Your task to perform on an android device: uninstall "Chime – Mobile Banking" Image 0: 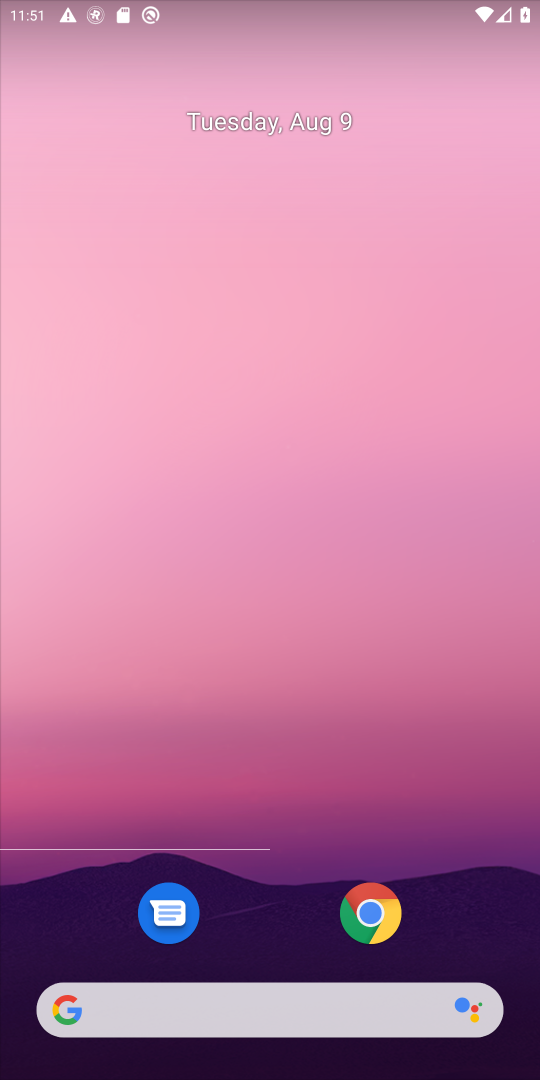
Step 0: drag from (286, 936) to (287, 256)
Your task to perform on an android device: uninstall "Chime – Mobile Banking" Image 1: 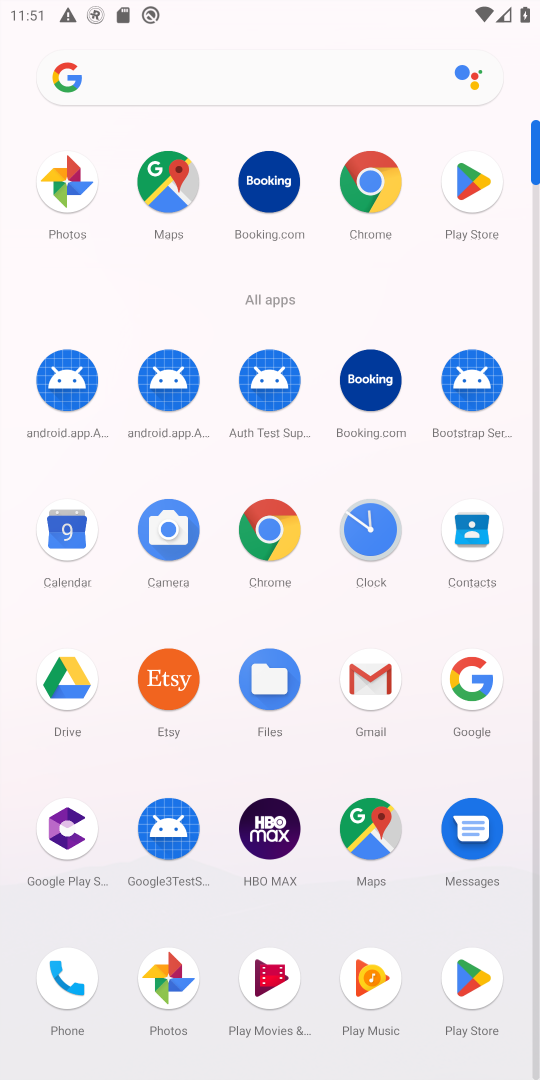
Step 1: click (457, 165)
Your task to perform on an android device: uninstall "Chime – Mobile Banking" Image 2: 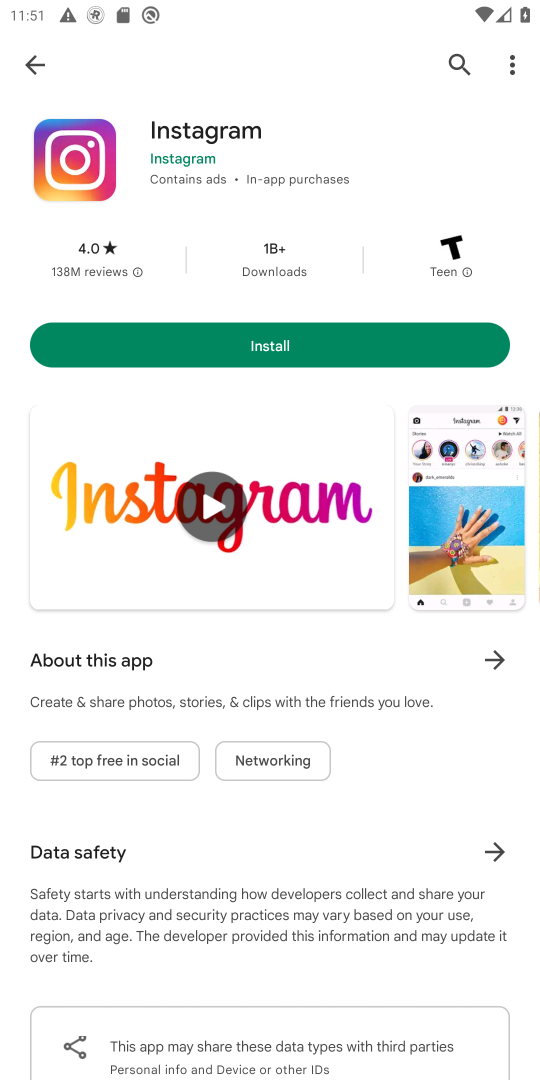
Step 2: click (31, 68)
Your task to perform on an android device: uninstall "Chime – Mobile Banking" Image 3: 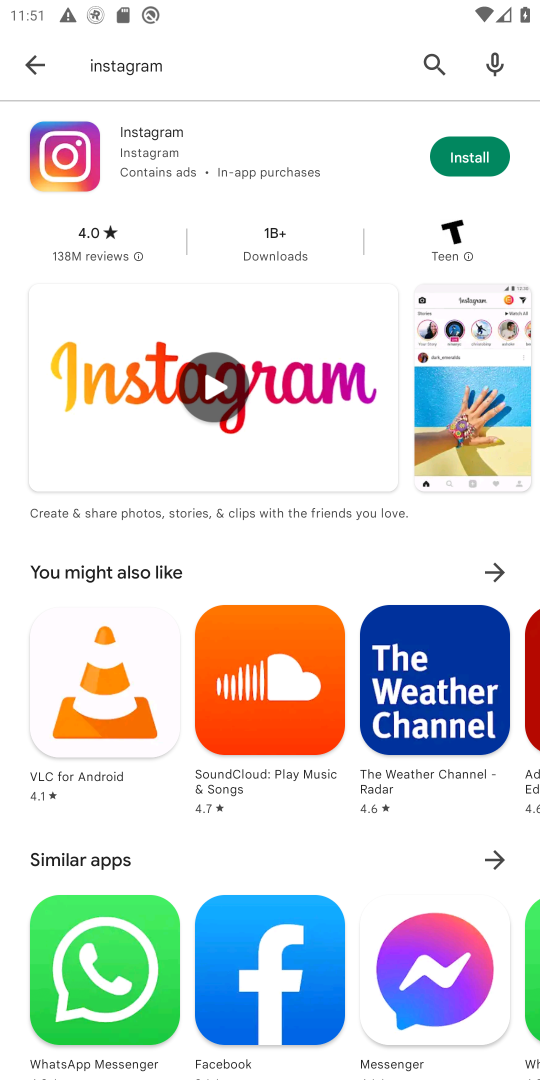
Step 3: click (24, 75)
Your task to perform on an android device: uninstall "Chime – Mobile Banking" Image 4: 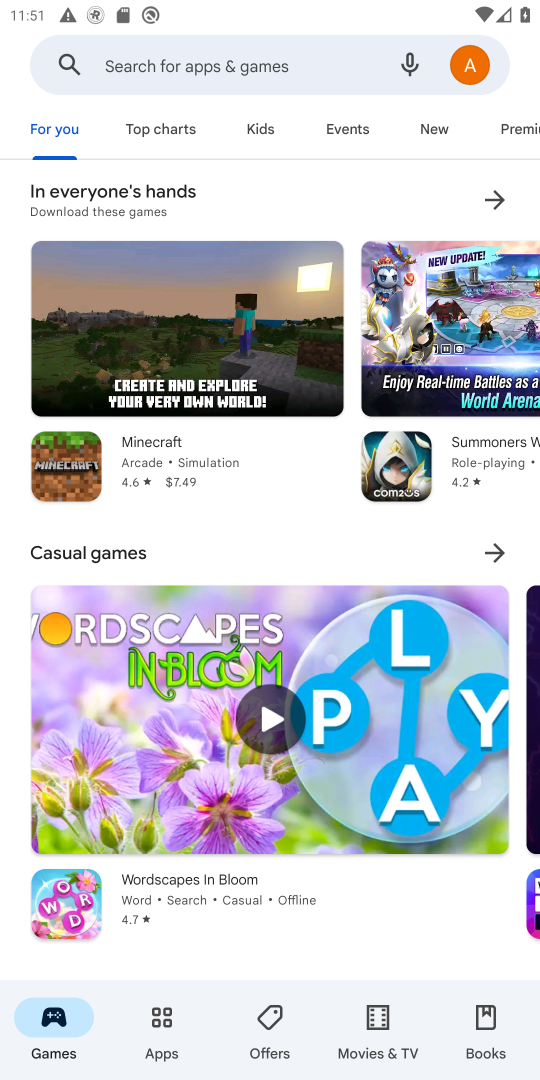
Step 4: click (252, 53)
Your task to perform on an android device: uninstall "Chime – Mobile Banking" Image 5: 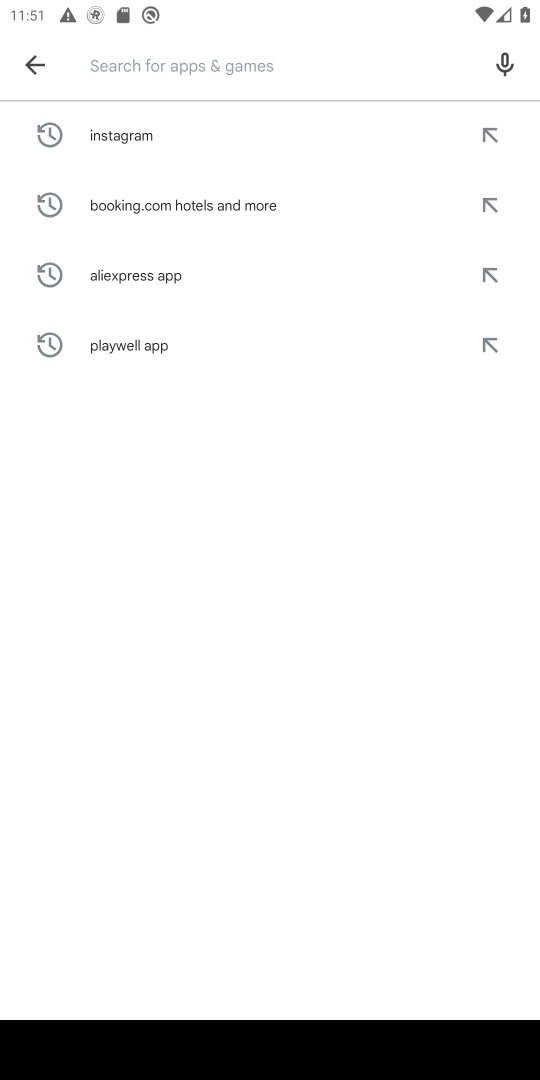
Step 5: type "Chime – Mobile Banking "
Your task to perform on an android device: uninstall "Chime – Mobile Banking" Image 6: 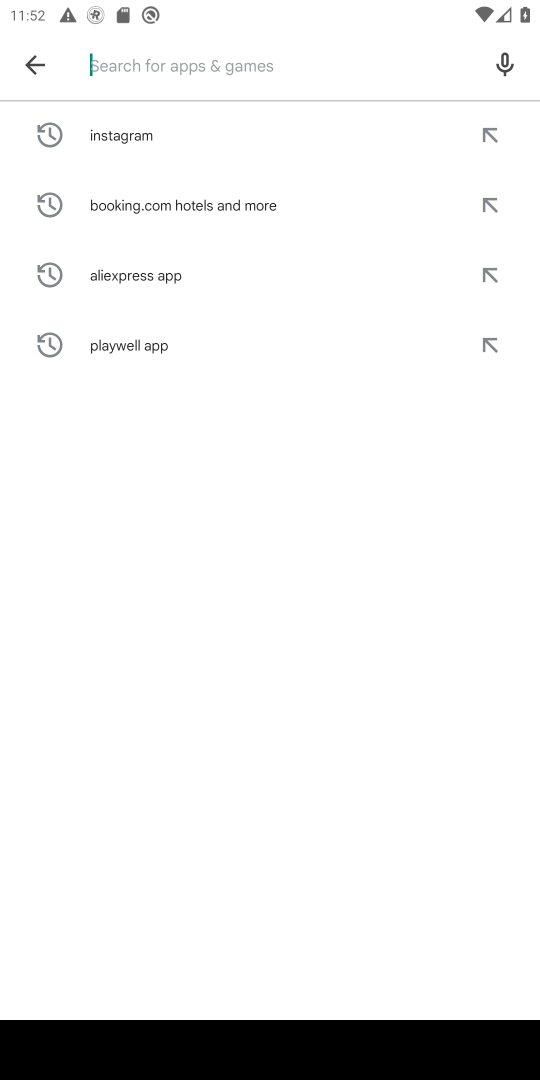
Step 6: click (133, 59)
Your task to perform on an android device: uninstall "Chime – Mobile Banking" Image 7: 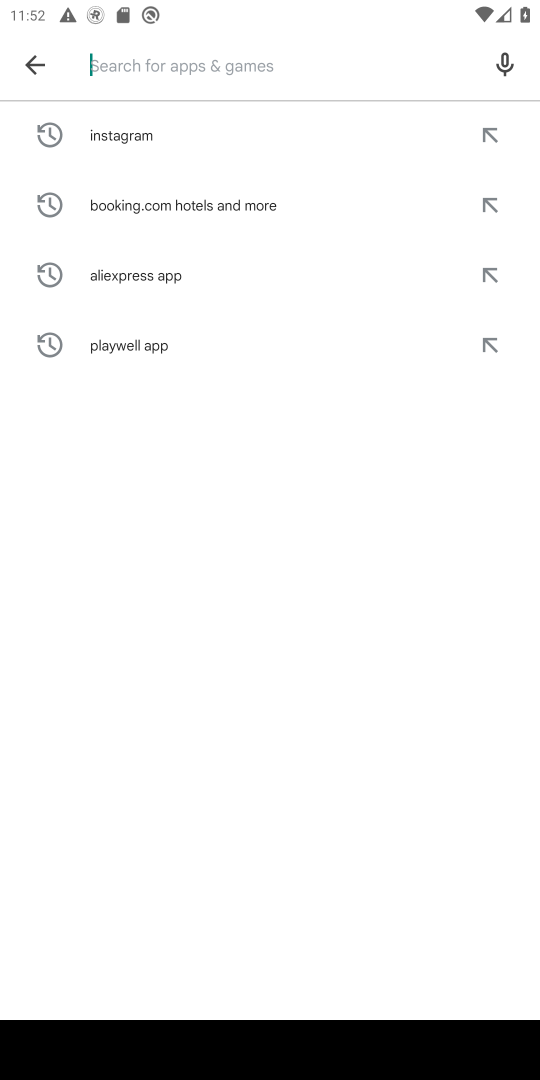
Step 7: type "Chime  "
Your task to perform on an android device: uninstall "Chime – Mobile Banking" Image 8: 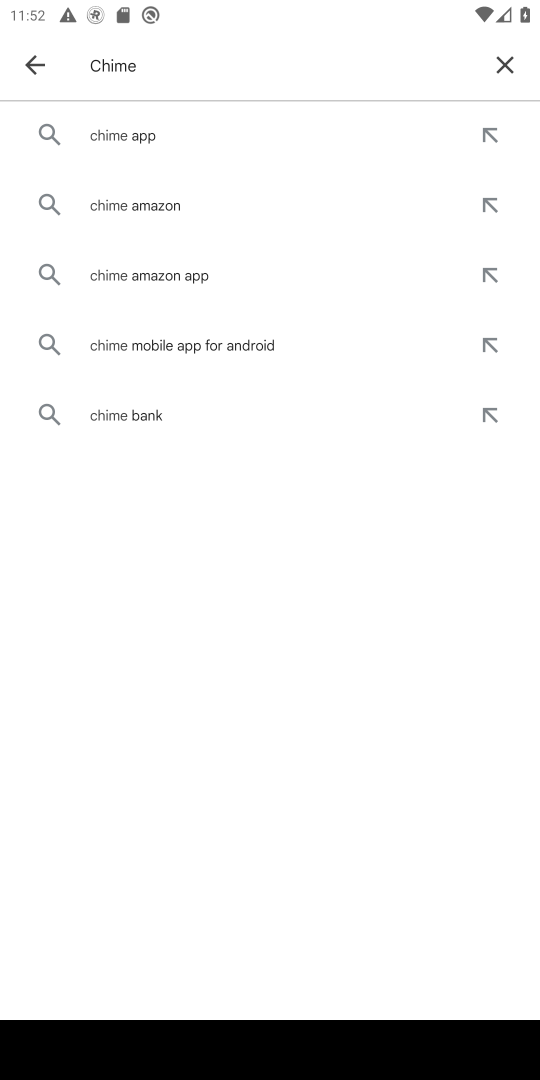
Step 8: click (161, 139)
Your task to perform on an android device: uninstall "Chime – Mobile Banking" Image 9: 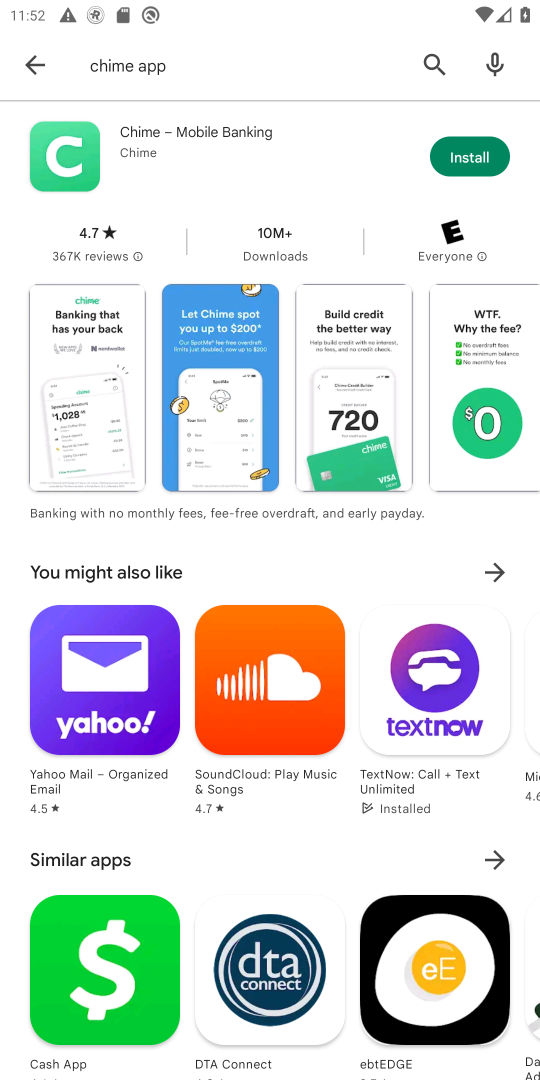
Step 9: click (239, 139)
Your task to perform on an android device: uninstall "Chime – Mobile Banking" Image 10: 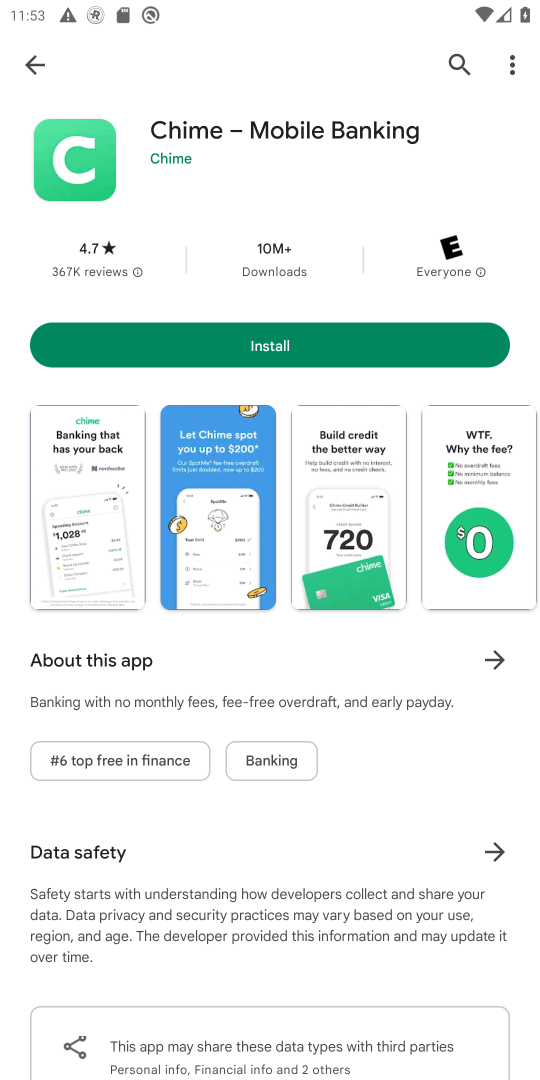
Step 10: task complete